Your task to perform on an android device: check data usage Image 0: 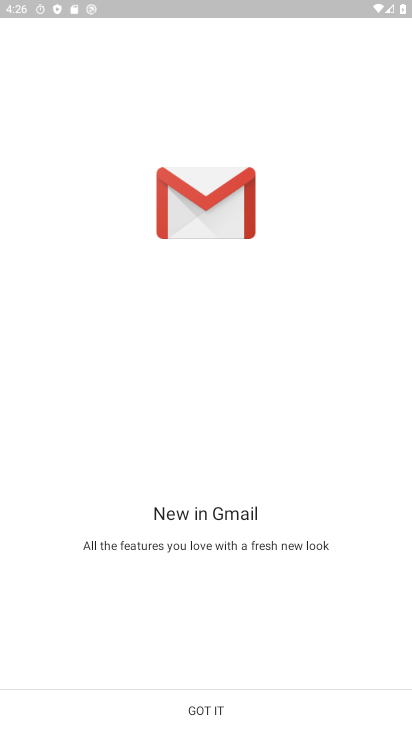
Step 0: press home button
Your task to perform on an android device: check data usage Image 1: 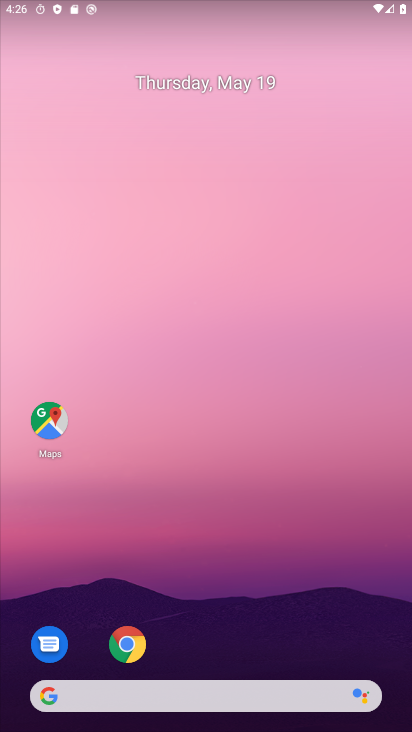
Step 1: drag from (188, 675) to (253, 176)
Your task to perform on an android device: check data usage Image 2: 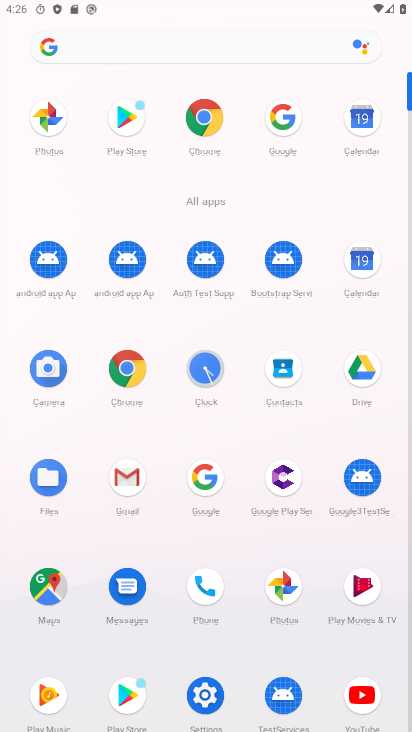
Step 2: click (208, 689)
Your task to perform on an android device: check data usage Image 3: 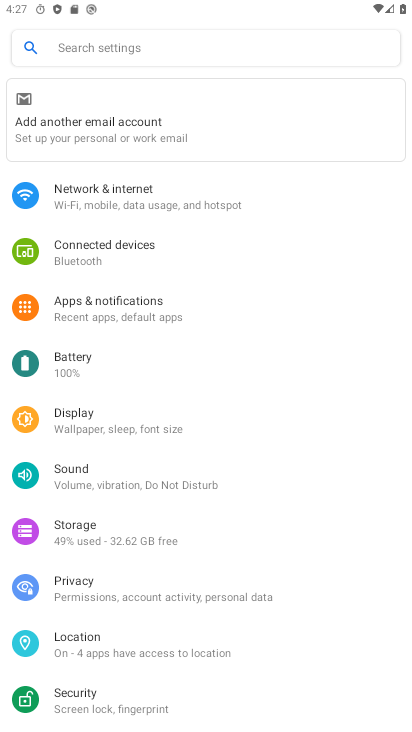
Step 3: click (90, 192)
Your task to perform on an android device: check data usage Image 4: 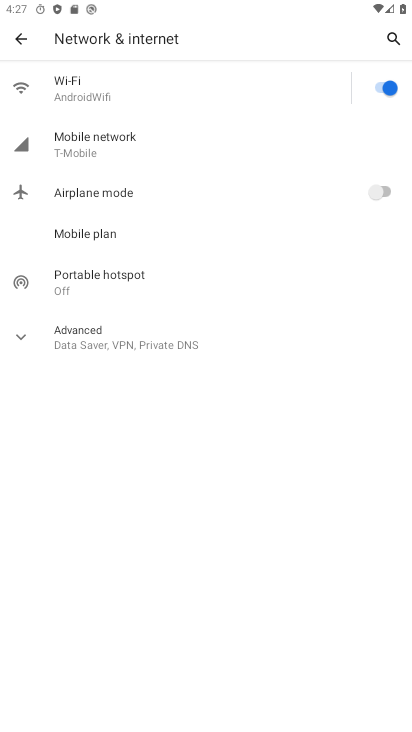
Step 4: click (82, 147)
Your task to perform on an android device: check data usage Image 5: 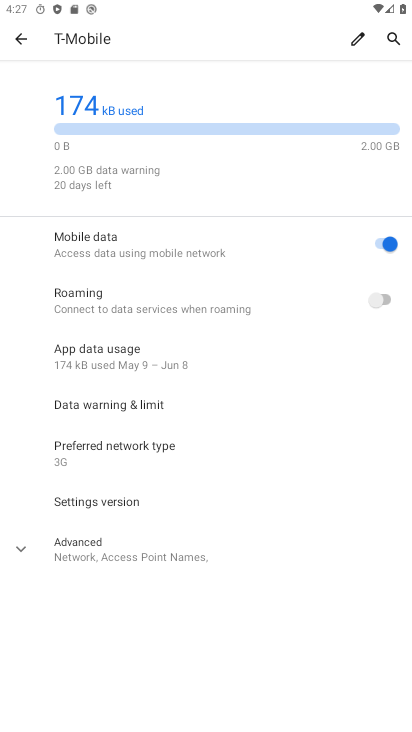
Step 5: click (93, 545)
Your task to perform on an android device: check data usage Image 6: 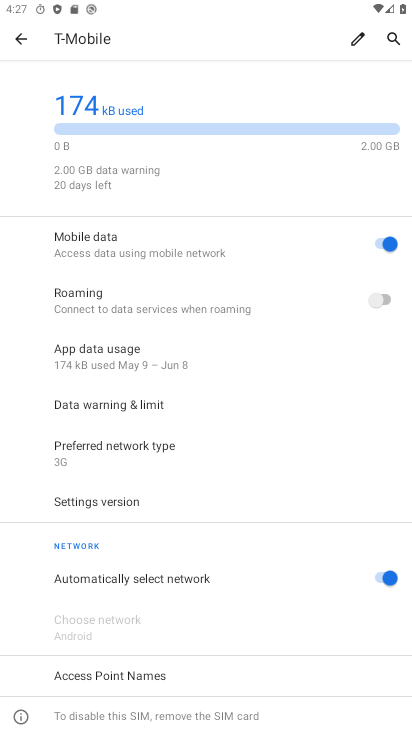
Step 6: task complete